Your task to perform on an android device: manage bookmarks in the chrome app Image 0: 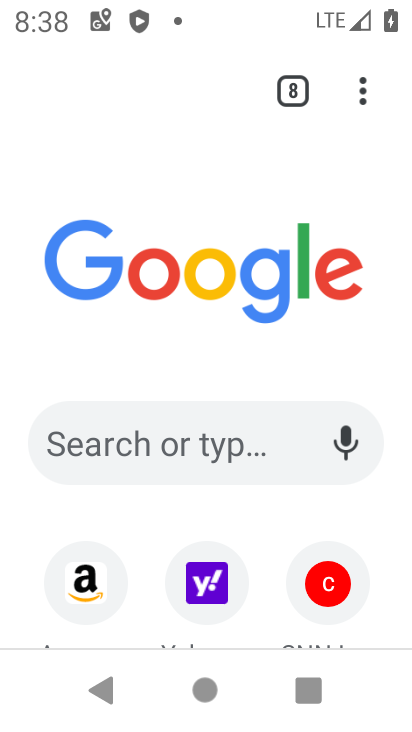
Step 0: press home button
Your task to perform on an android device: manage bookmarks in the chrome app Image 1: 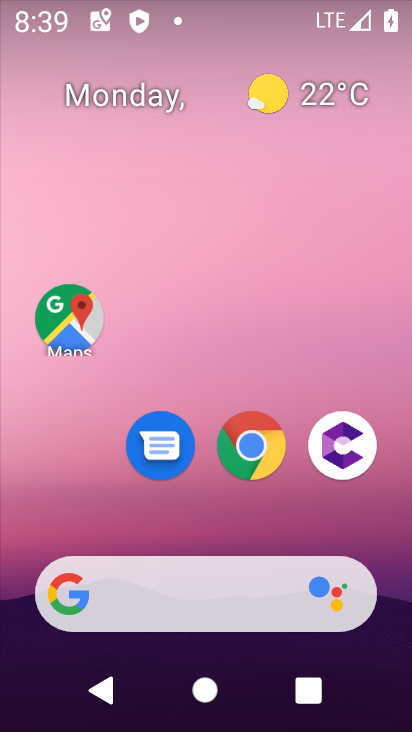
Step 1: click (261, 453)
Your task to perform on an android device: manage bookmarks in the chrome app Image 2: 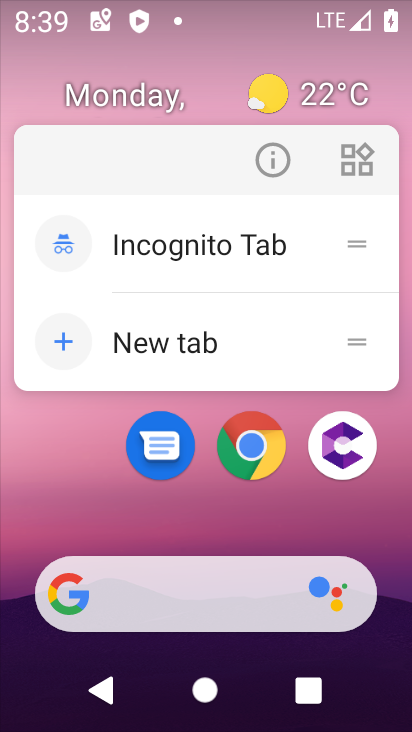
Step 2: click (247, 461)
Your task to perform on an android device: manage bookmarks in the chrome app Image 3: 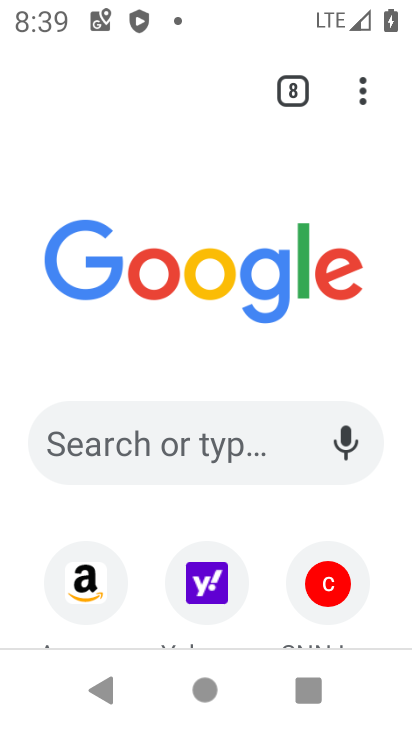
Step 3: drag from (367, 82) to (184, 340)
Your task to perform on an android device: manage bookmarks in the chrome app Image 4: 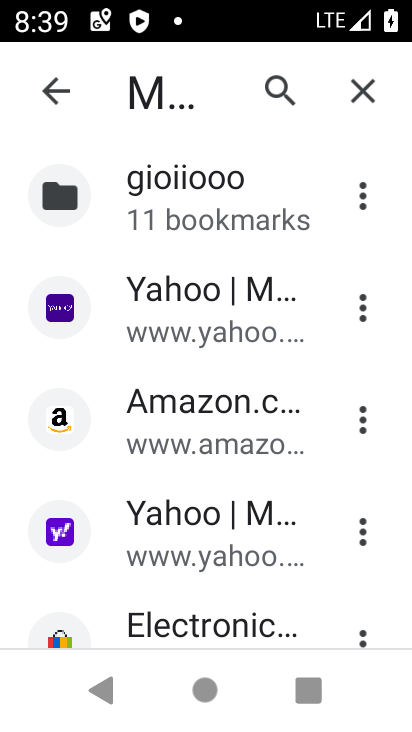
Step 4: click (362, 420)
Your task to perform on an android device: manage bookmarks in the chrome app Image 5: 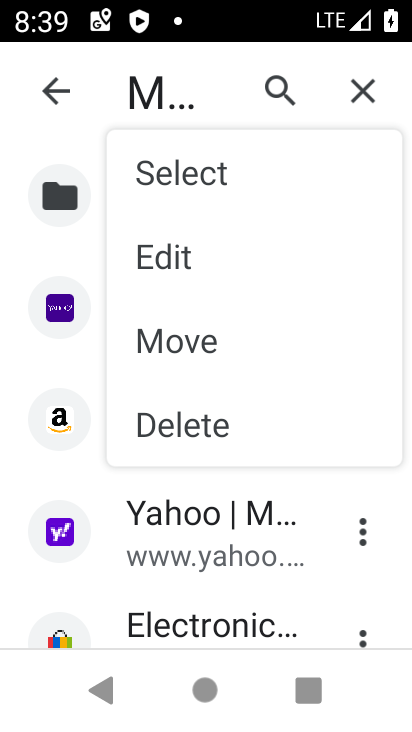
Step 5: click (188, 252)
Your task to perform on an android device: manage bookmarks in the chrome app Image 6: 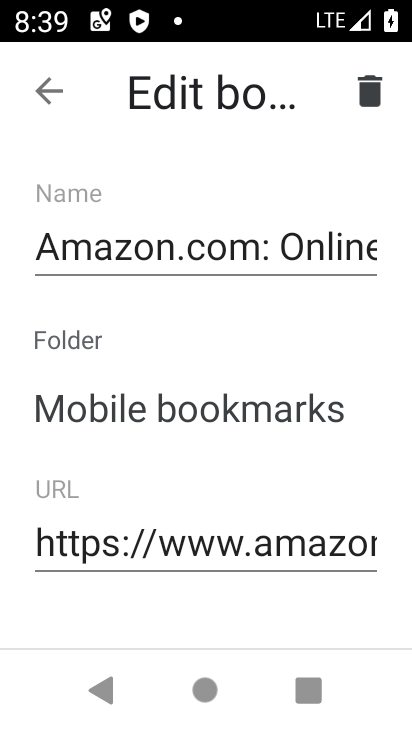
Step 6: drag from (280, 497) to (268, 157)
Your task to perform on an android device: manage bookmarks in the chrome app Image 7: 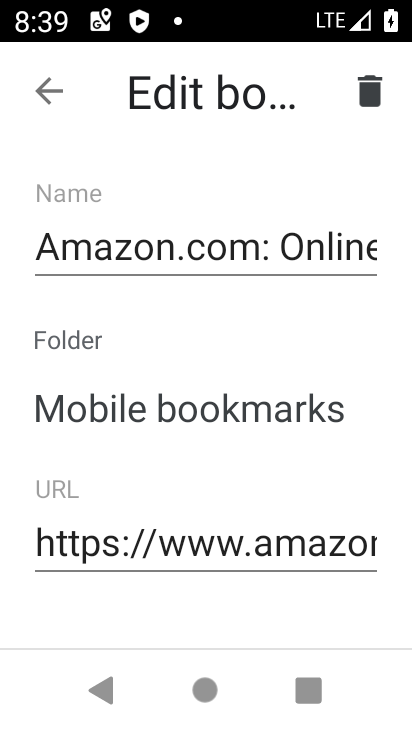
Step 7: drag from (323, 285) to (169, 273)
Your task to perform on an android device: manage bookmarks in the chrome app Image 8: 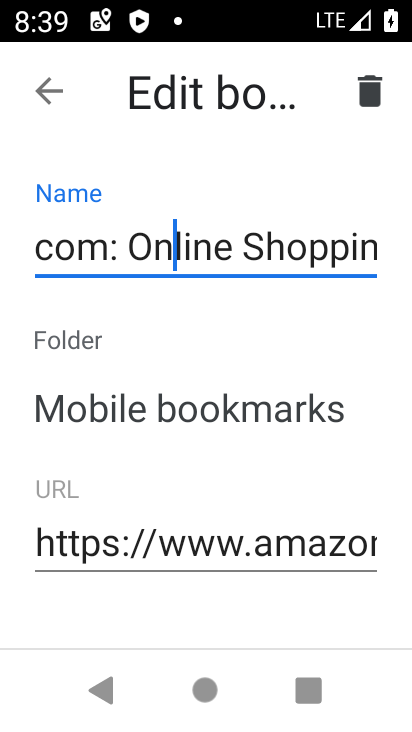
Step 8: drag from (288, 321) to (116, 296)
Your task to perform on an android device: manage bookmarks in the chrome app Image 9: 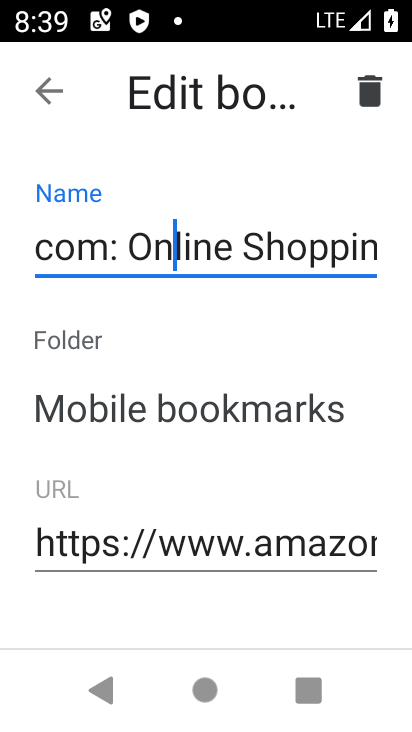
Step 9: drag from (285, 493) to (264, 227)
Your task to perform on an android device: manage bookmarks in the chrome app Image 10: 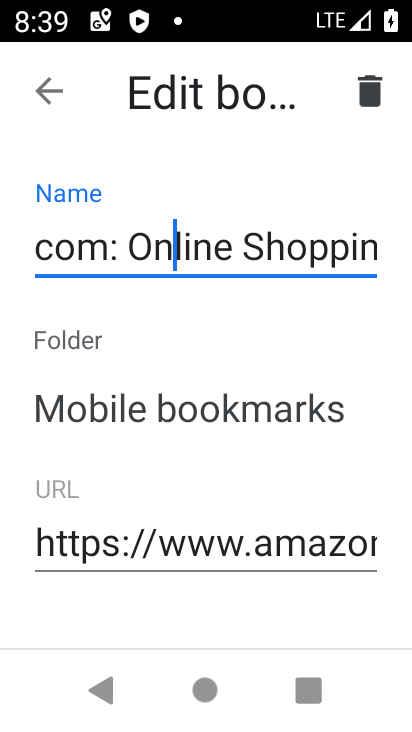
Step 10: drag from (268, 613) to (290, 270)
Your task to perform on an android device: manage bookmarks in the chrome app Image 11: 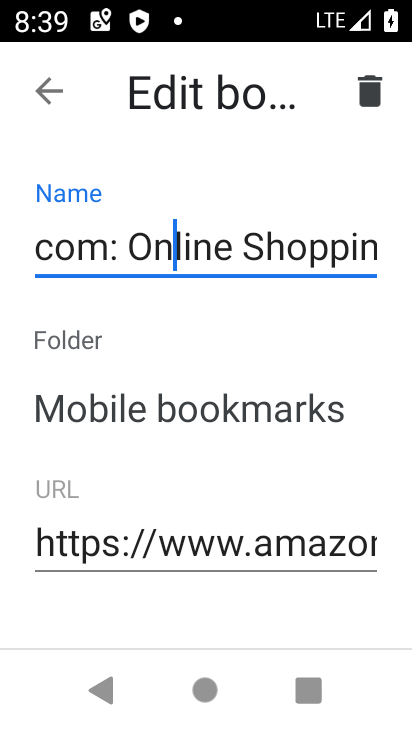
Step 11: click (208, 91)
Your task to perform on an android device: manage bookmarks in the chrome app Image 12: 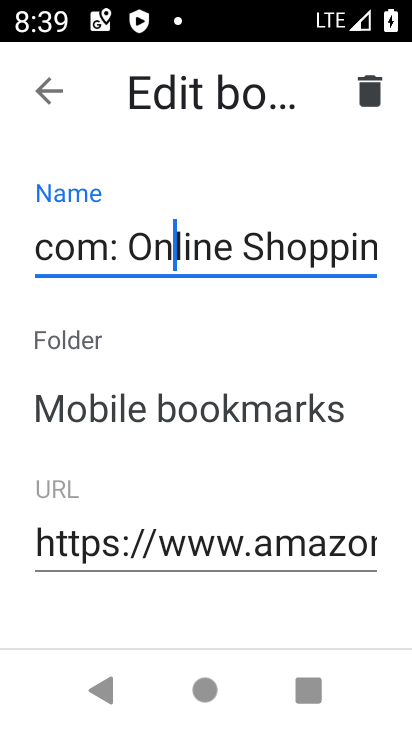
Step 12: click (42, 78)
Your task to perform on an android device: manage bookmarks in the chrome app Image 13: 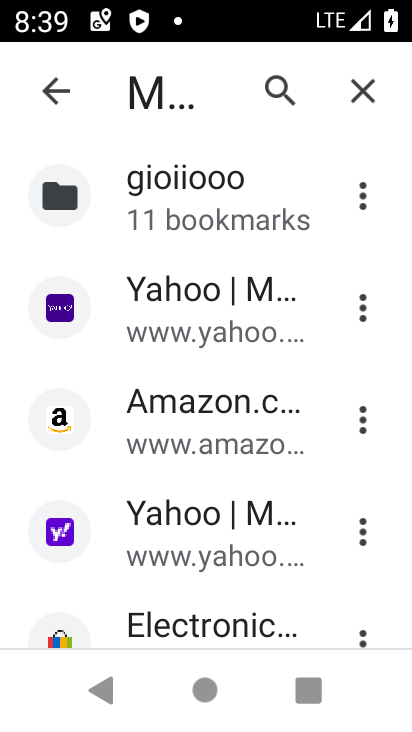
Step 13: task complete